Your task to perform on an android device: empty trash in the gmail app Image 0: 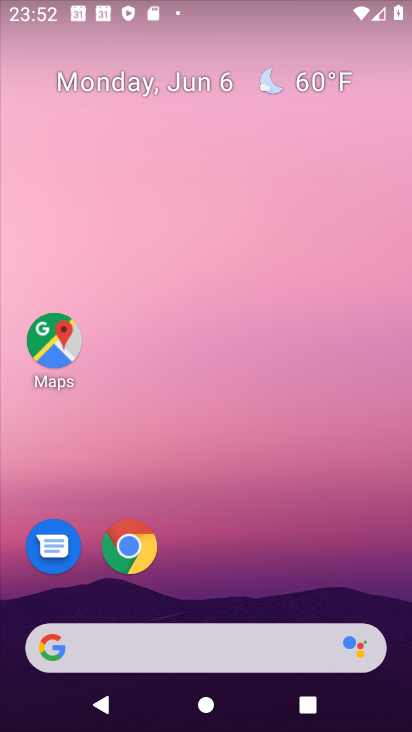
Step 0: drag from (278, 506) to (235, 211)
Your task to perform on an android device: empty trash in the gmail app Image 1: 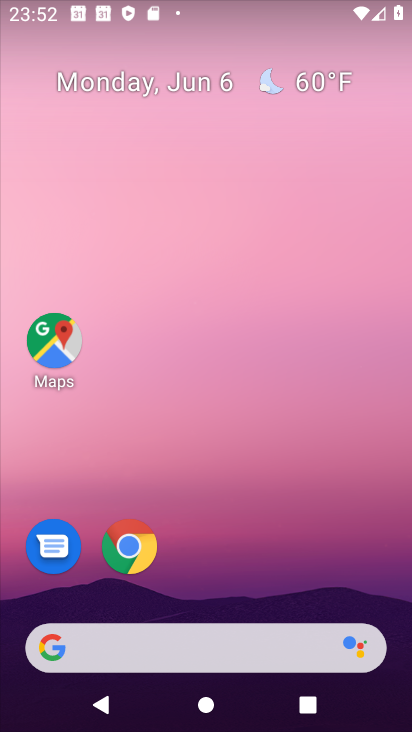
Step 1: drag from (226, 653) to (153, 282)
Your task to perform on an android device: empty trash in the gmail app Image 2: 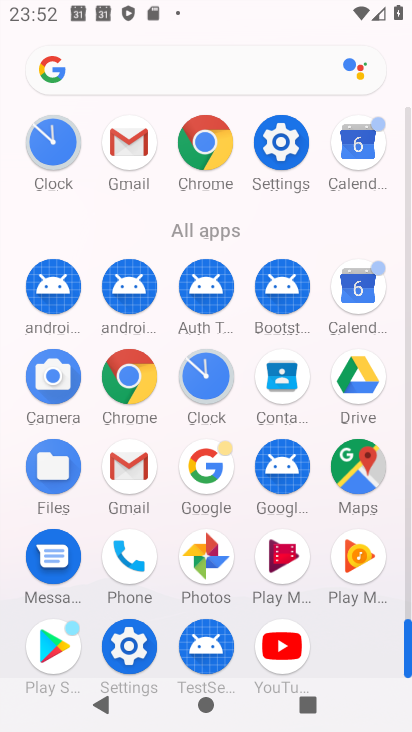
Step 2: click (135, 465)
Your task to perform on an android device: empty trash in the gmail app Image 3: 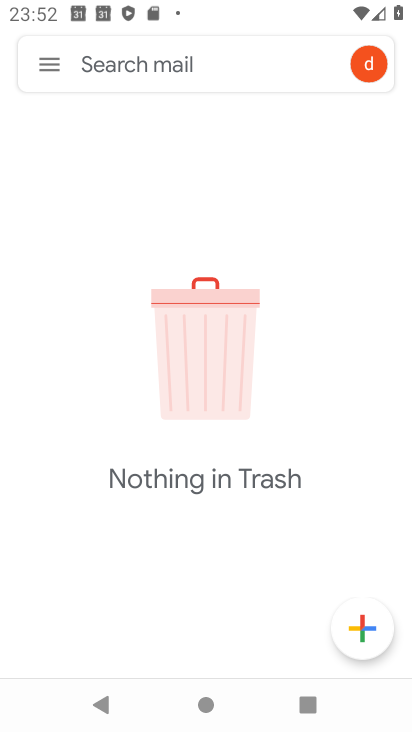
Step 3: click (45, 68)
Your task to perform on an android device: empty trash in the gmail app Image 4: 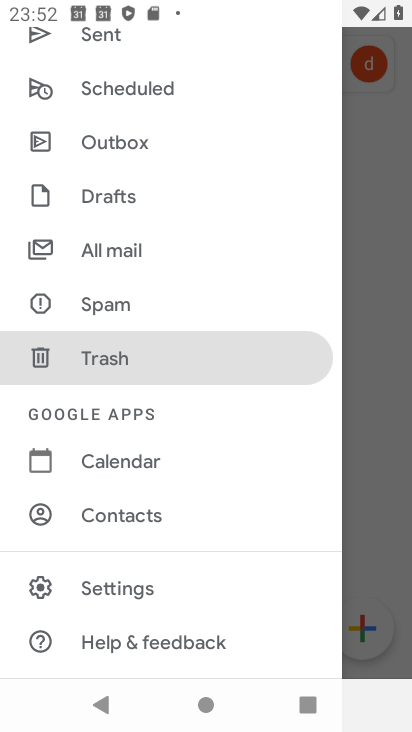
Step 4: click (109, 349)
Your task to perform on an android device: empty trash in the gmail app Image 5: 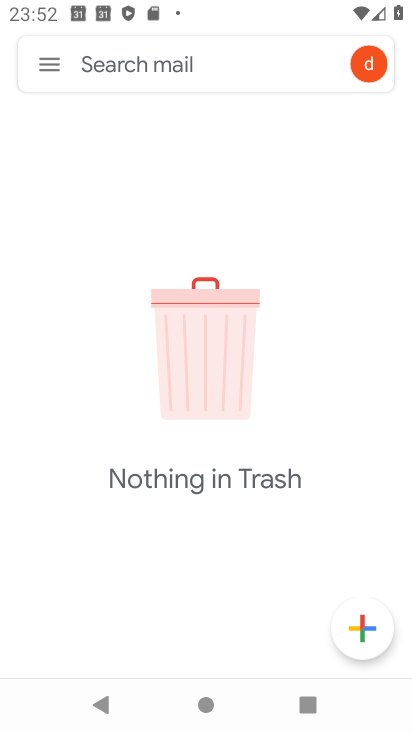
Step 5: task complete